Your task to perform on an android device: check storage Image 0: 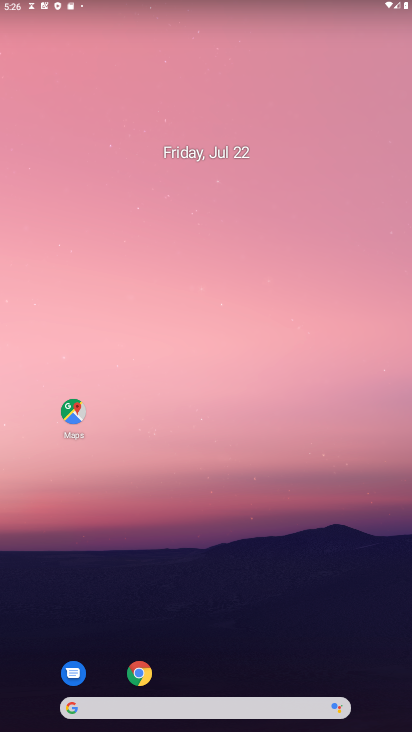
Step 0: press home button
Your task to perform on an android device: check storage Image 1: 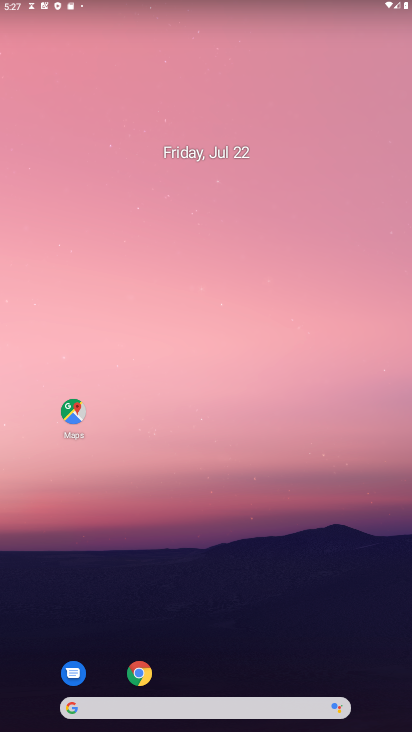
Step 1: drag from (211, 622) to (123, 29)
Your task to perform on an android device: check storage Image 2: 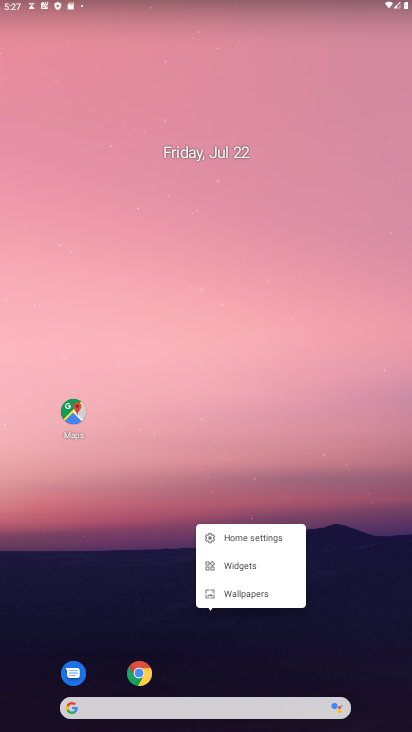
Step 2: drag from (255, 649) to (294, 110)
Your task to perform on an android device: check storage Image 3: 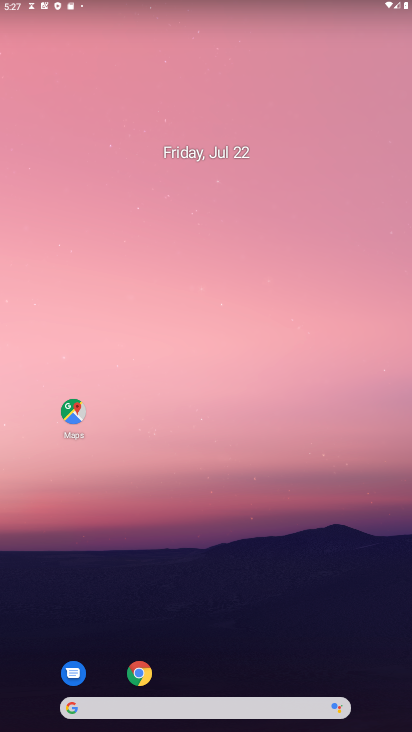
Step 3: drag from (284, 659) to (232, 129)
Your task to perform on an android device: check storage Image 4: 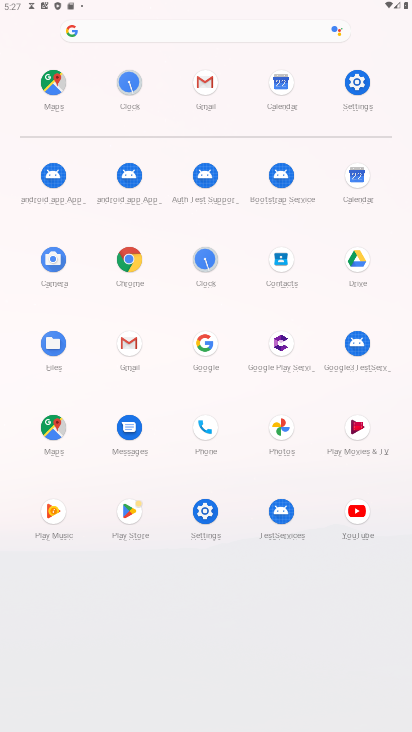
Step 4: click (355, 96)
Your task to perform on an android device: check storage Image 5: 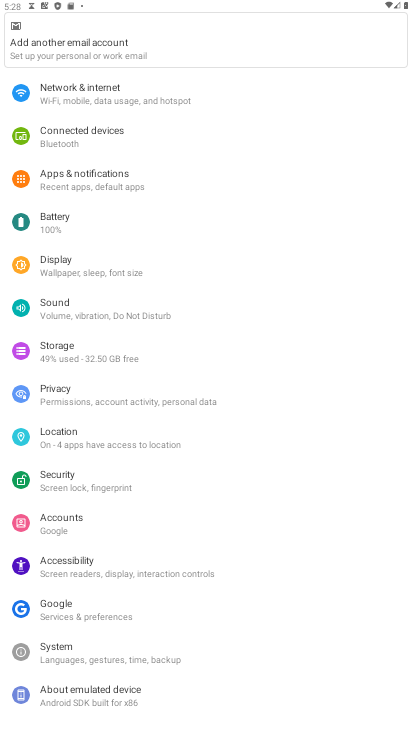
Step 5: click (49, 353)
Your task to perform on an android device: check storage Image 6: 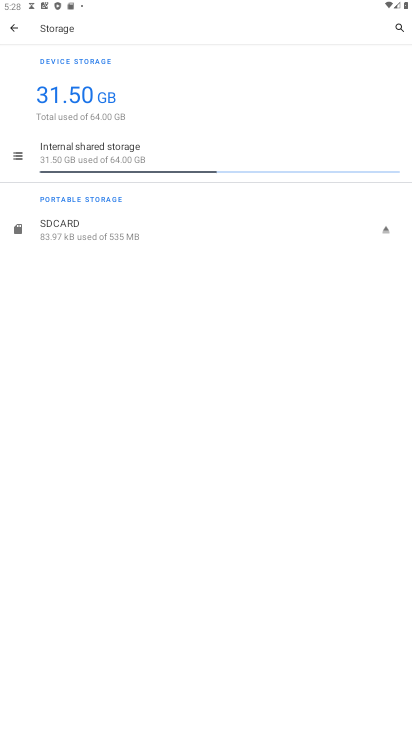
Step 6: task complete